Your task to perform on an android device: Open Youtube and go to the subscriptions tab Image 0: 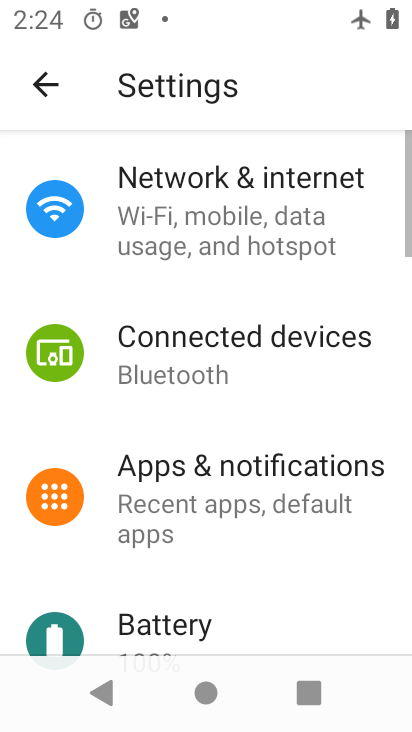
Step 0: press home button
Your task to perform on an android device: Open Youtube and go to the subscriptions tab Image 1: 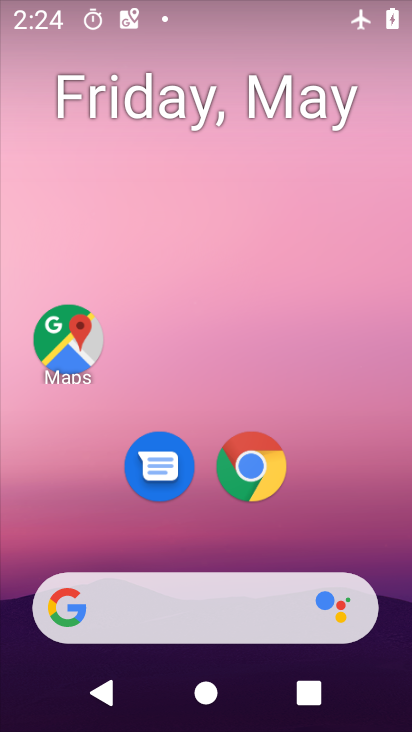
Step 1: drag from (336, 534) to (330, 38)
Your task to perform on an android device: Open Youtube and go to the subscriptions tab Image 2: 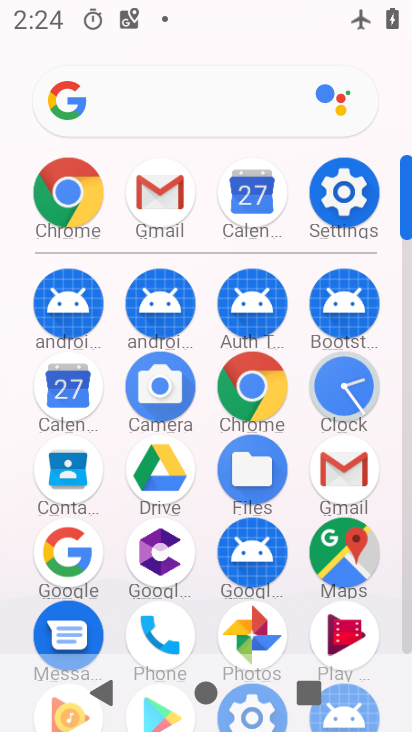
Step 2: drag from (395, 633) to (410, 186)
Your task to perform on an android device: Open Youtube and go to the subscriptions tab Image 3: 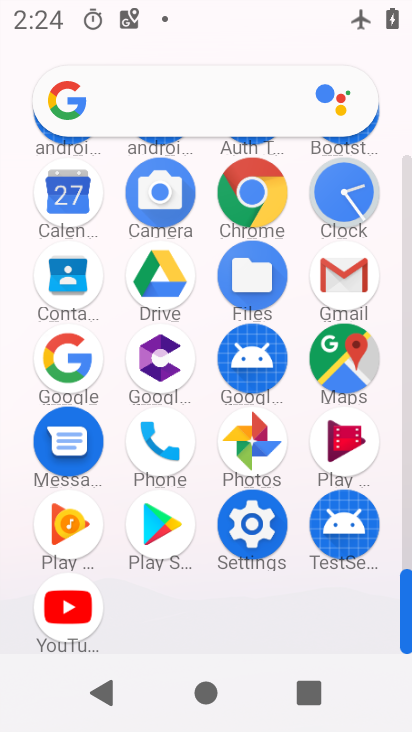
Step 3: drag from (246, 541) to (272, 275)
Your task to perform on an android device: Open Youtube and go to the subscriptions tab Image 4: 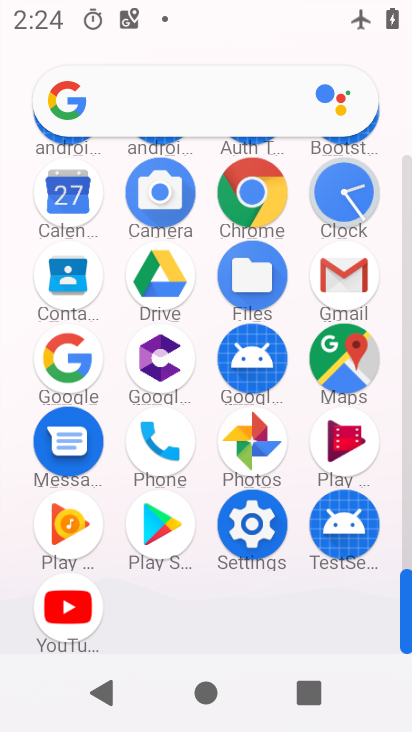
Step 4: click (67, 611)
Your task to perform on an android device: Open Youtube and go to the subscriptions tab Image 5: 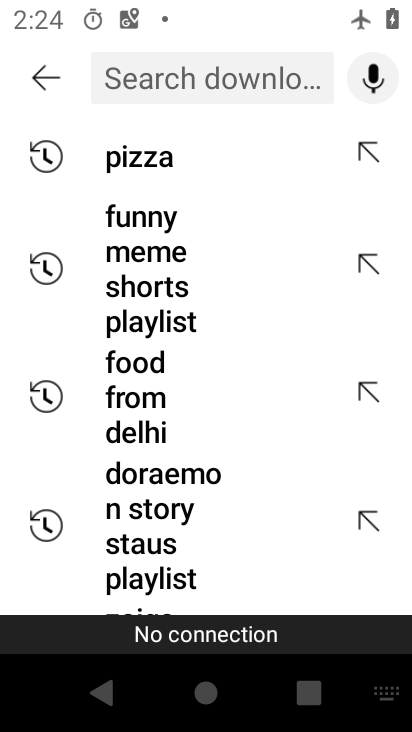
Step 5: press back button
Your task to perform on an android device: Open Youtube and go to the subscriptions tab Image 6: 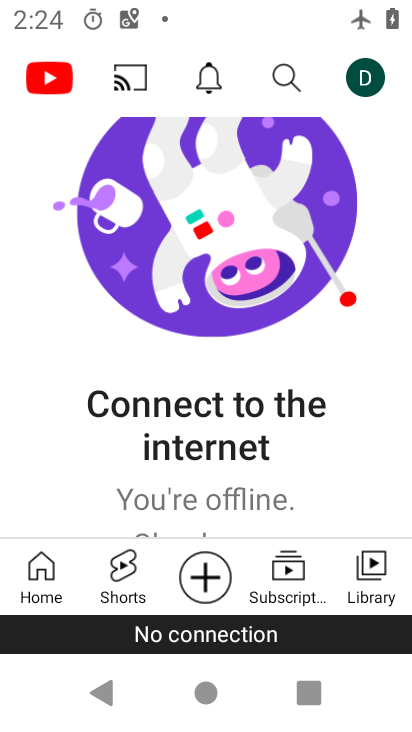
Step 6: click (289, 562)
Your task to perform on an android device: Open Youtube and go to the subscriptions tab Image 7: 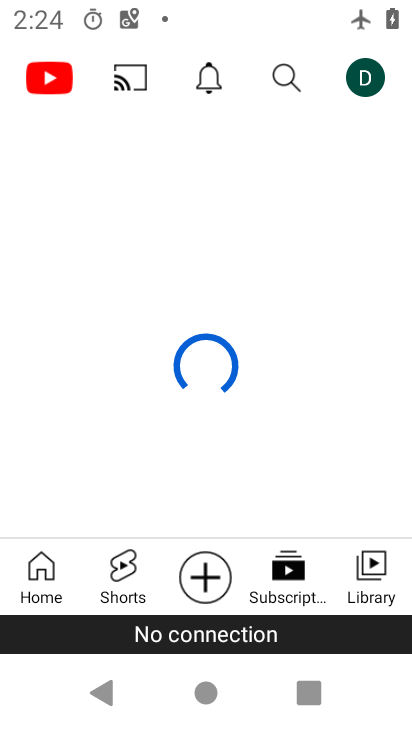
Step 7: task complete